Your task to perform on an android device: turn off notifications settings in the gmail app Image 0: 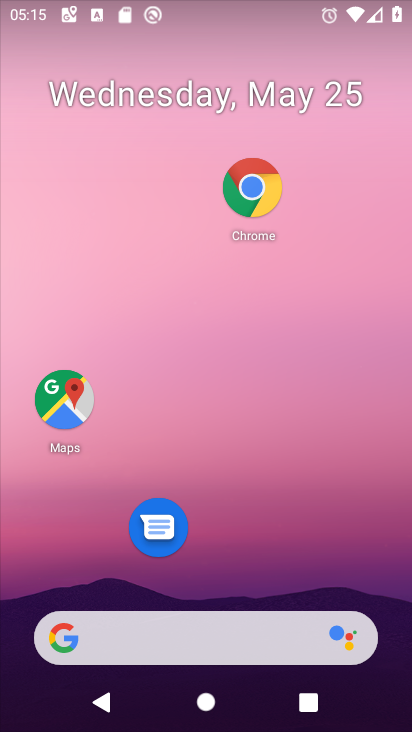
Step 0: drag from (230, 593) to (265, 90)
Your task to perform on an android device: turn off notifications settings in the gmail app Image 1: 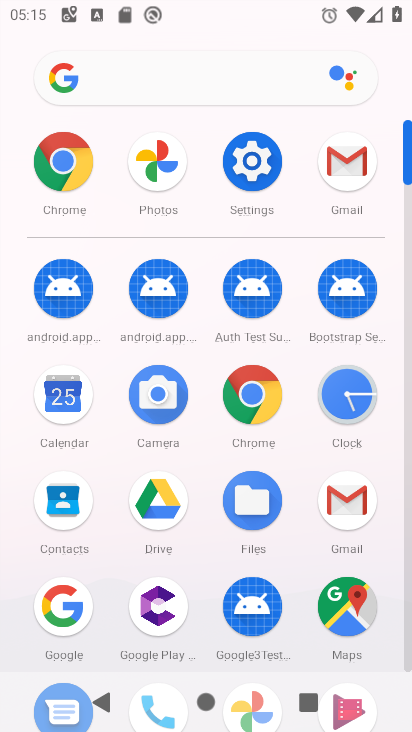
Step 1: click (364, 493)
Your task to perform on an android device: turn off notifications settings in the gmail app Image 2: 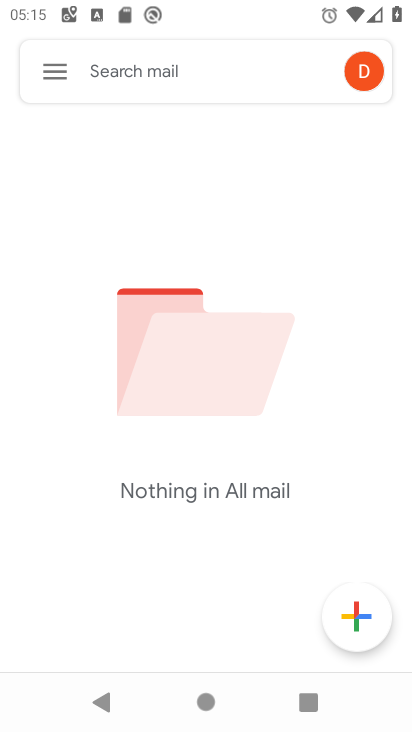
Step 2: click (362, 65)
Your task to perform on an android device: turn off notifications settings in the gmail app Image 3: 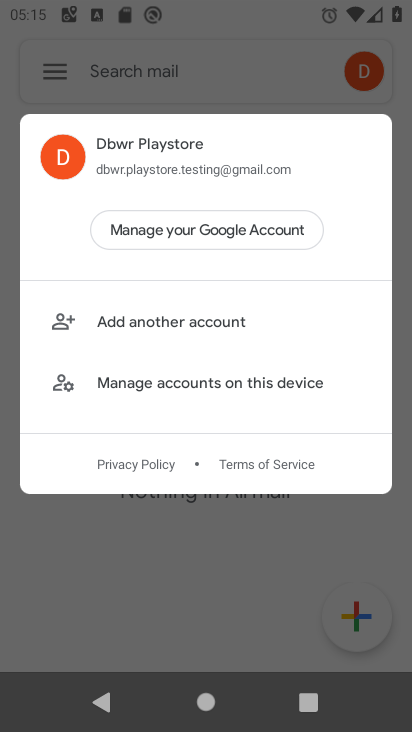
Step 3: click (181, 534)
Your task to perform on an android device: turn off notifications settings in the gmail app Image 4: 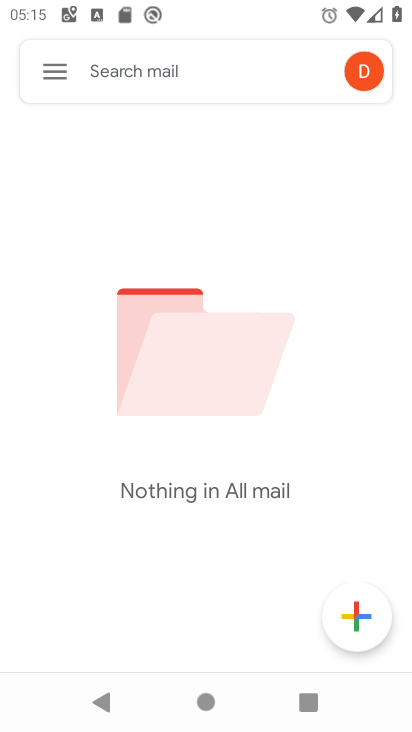
Step 4: click (59, 72)
Your task to perform on an android device: turn off notifications settings in the gmail app Image 5: 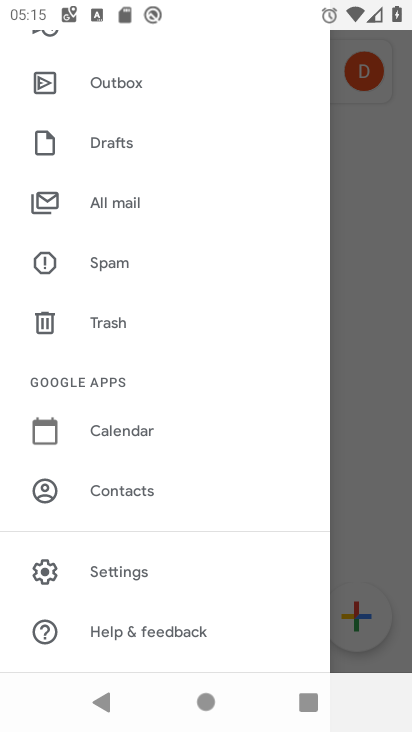
Step 5: click (123, 567)
Your task to perform on an android device: turn off notifications settings in the gmail app Image 6: 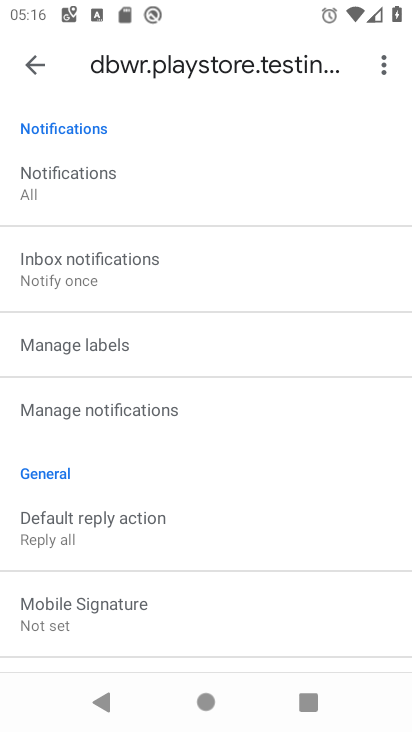
Step 6: drag from (281, 485) to (243, 200)
Your task to perform on an android device: turn off notifications settings in the gmail app Image 7: 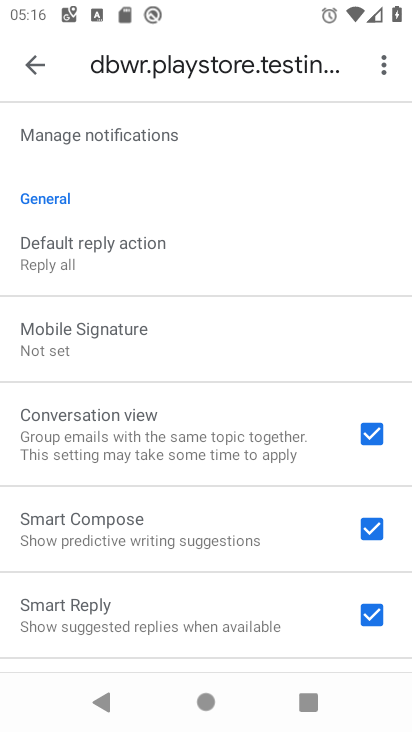
Step 7: drag from (256, 518) to (249, 250)
Your task to perform on an android device: turn off notifications settings in the gmail app Image 8: 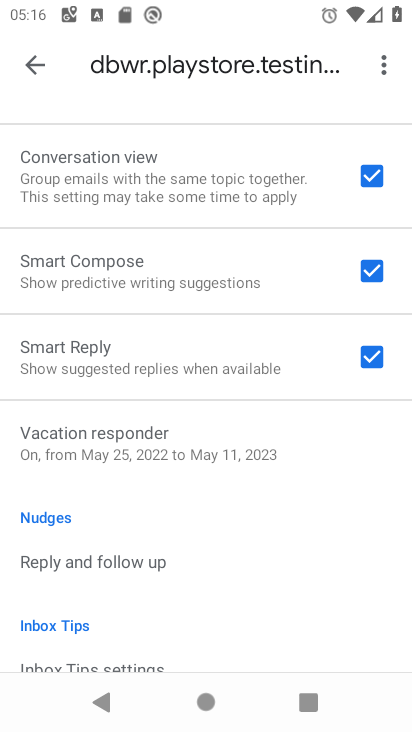
Step 8: drag from (233, 534) to (223, 288)
Your task to perform on an android device: turn off notifications settings in the gmail app Image 9: 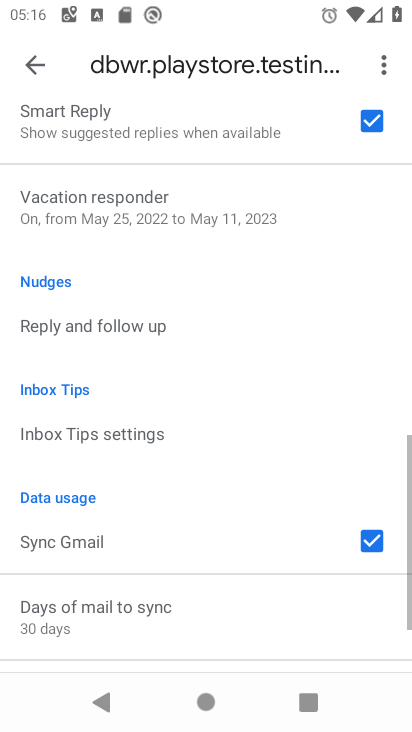
Step 9: drag from (152, 507) to (216, 260)
Your task to perform on an android device: turn off notifications settings in the gmail app Image 10: 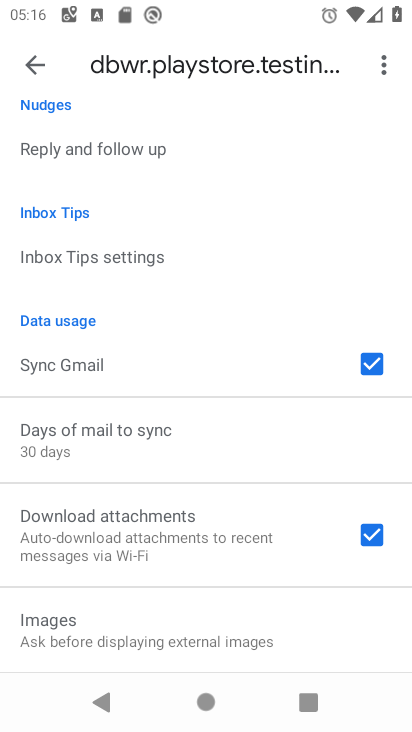
Step 10: drag from (251, 244) to (180, 573)
Your task to perform on an android device: turn off notifications settings in the gmail app Image 11: 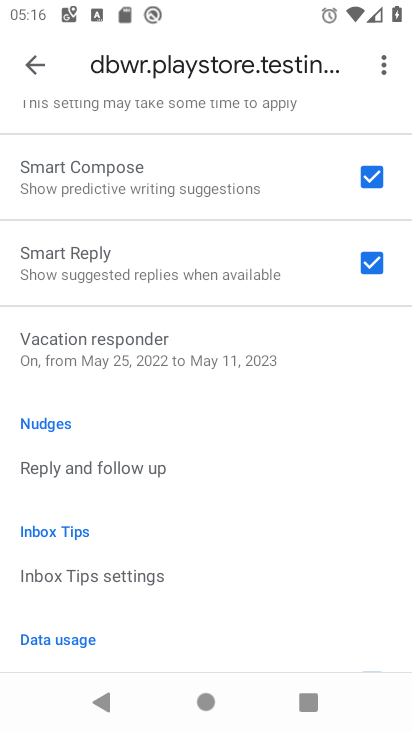
Step 11: drag from (190, 247) to (135, 579)
Your task to perform on an android device: turn off notifications settings in the gmail app Image 12: 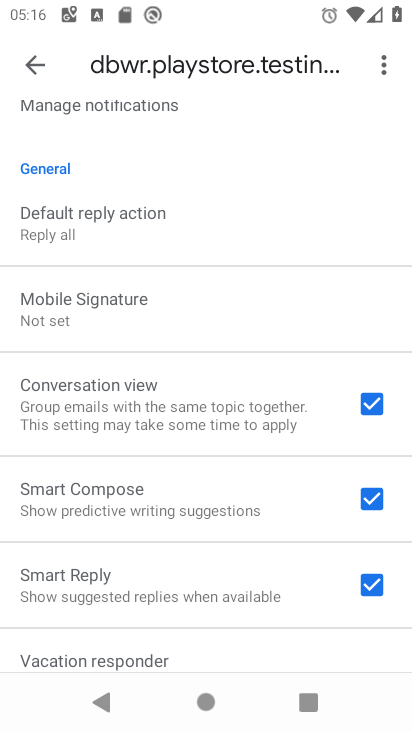
Step 12: drag from (354, 353) to (346, 176)
Your task to perform on an android device: turn off notifications settings in the gmail app Image 13: 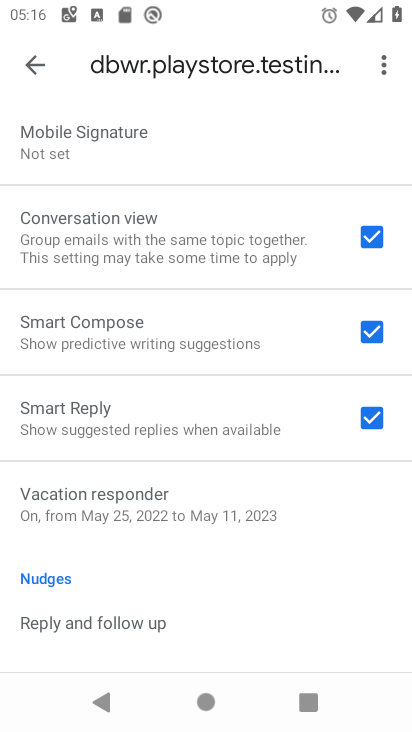
Step 13: drag from (297, 156) to (198, 498)
Your task to perform on an android device: turn off notifications settings in the gmail app Image 14: 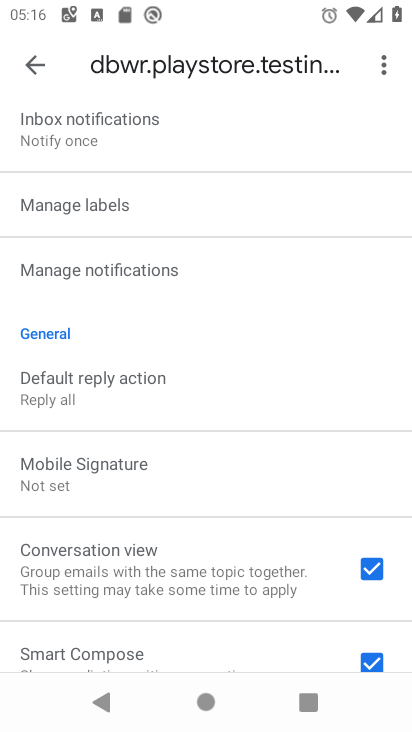
Step 14: click (122, 271)
Your task to perform on an android device: turn off notifications settings in the gmail app Image 15: 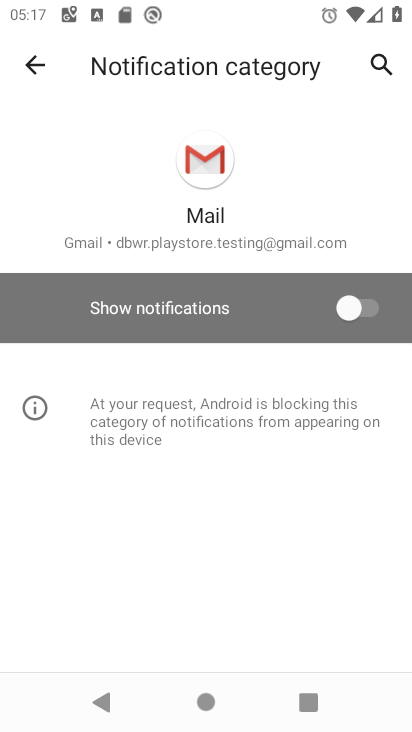
Step 15: task complete